Your task to perform on an android device: What's the weather going to be tomorrow? Image 0: 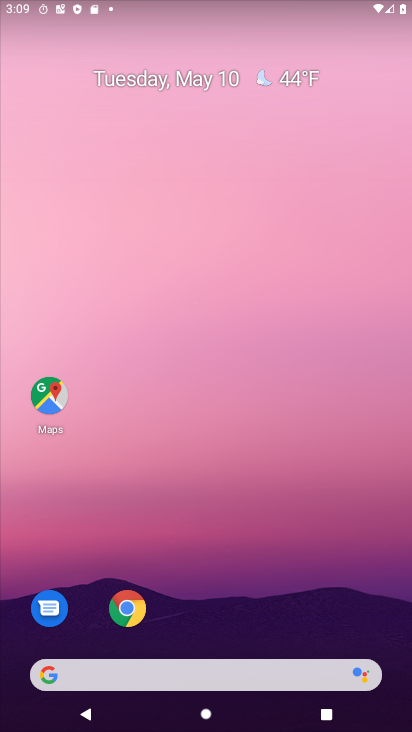
Step 0: click (298, 90)
Your task to perform on an android device: What's the weather going to be tomorrow? Image 1: 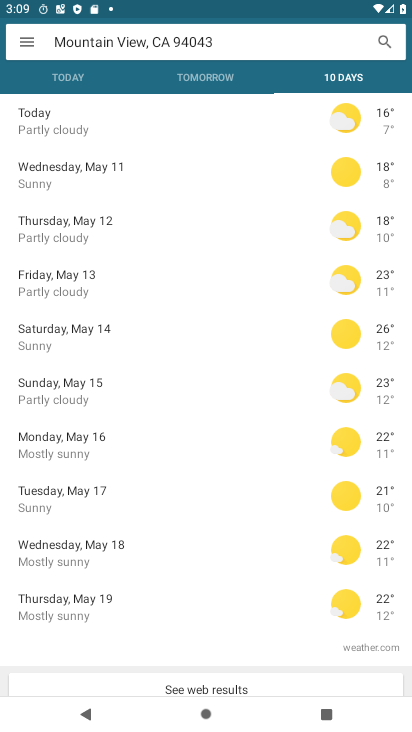
Step 1: click (187, 78)
Your task to perform on an android device: What's the weather going to be tomorrow? Image 2: 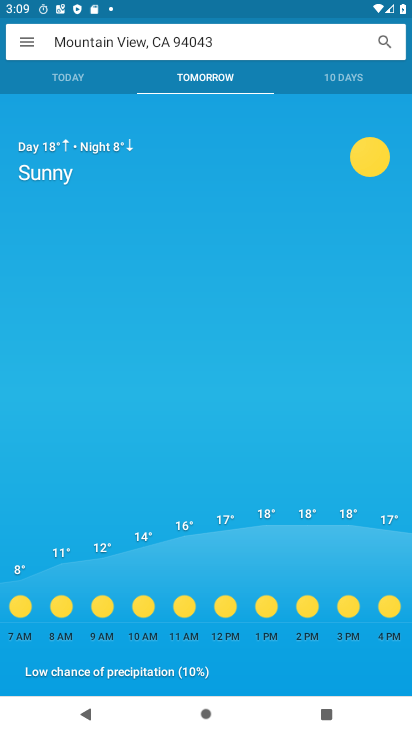
Step 2: task complete